Your task to perform on an android device: turn off notifications in google photos Image 0: 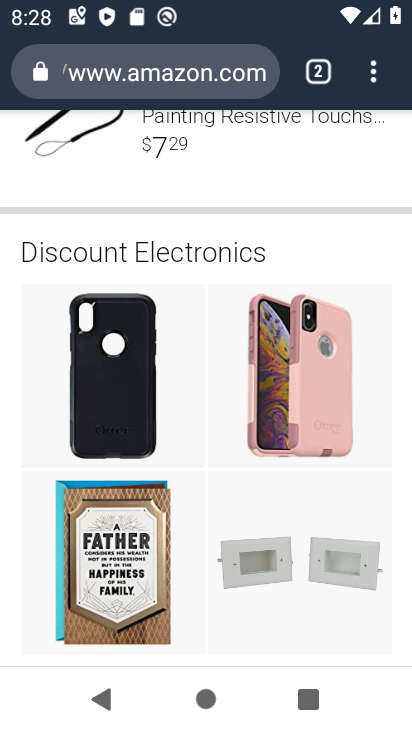
Step 0: press home button
Your task to perform on an android device: turn off notifications in google photos Image 1: 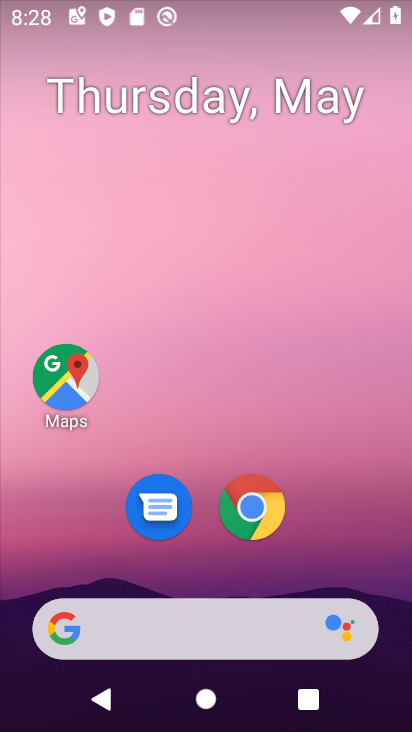
Step 1: drag from (361, 557) to (350, 107)
Your task to perform on an android device: turn off notifications in google photos Image 2: 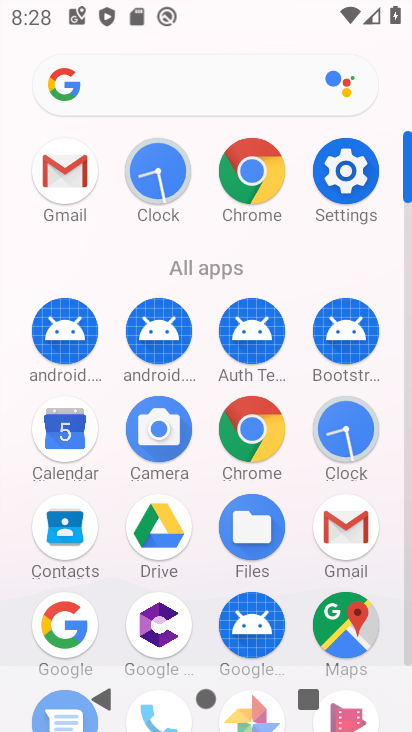
Step 2: drag from (213, 569) to (204, 175)
Your task to perform on an android device: turn off notifications in google photos Image 3: 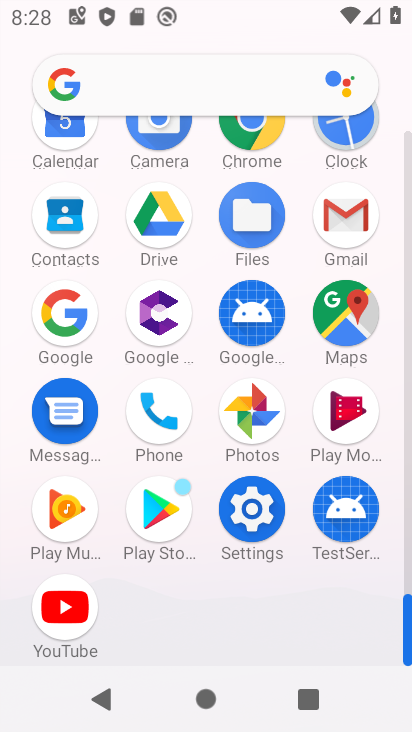
Step 3: click (265, 403)
Your task to perform on an android device: turn off notifications in google photos Image 4: 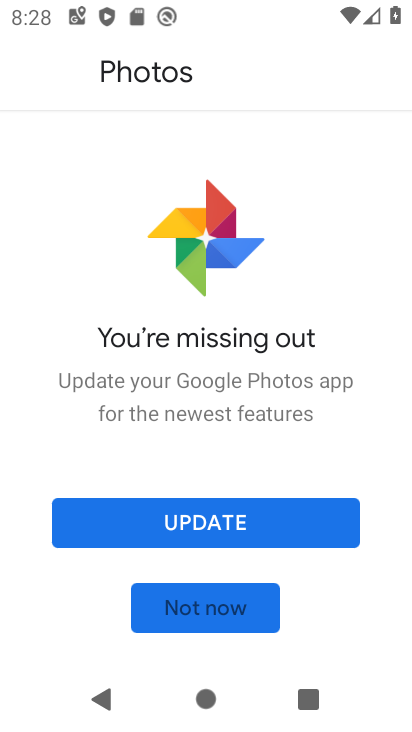
Step 4: click (247, 528)
Your task to perform on an android device: turn off notifications in google photos Image 5: 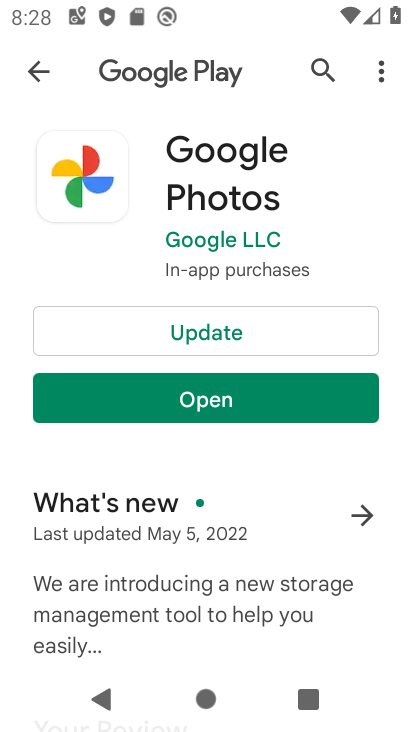
Step 5: click (223, 334)
Your task to perform on an android device: turn off notifications in google photos Image 6: 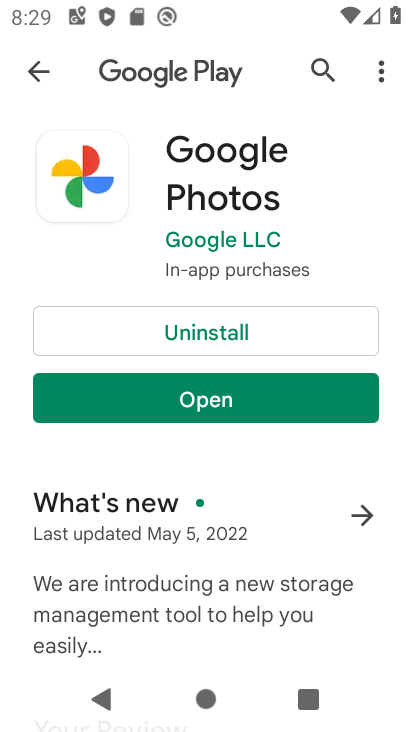
Step 6: click (198, 407)
Your task to perform on an android device: turn off notifications in google photos Image 7: 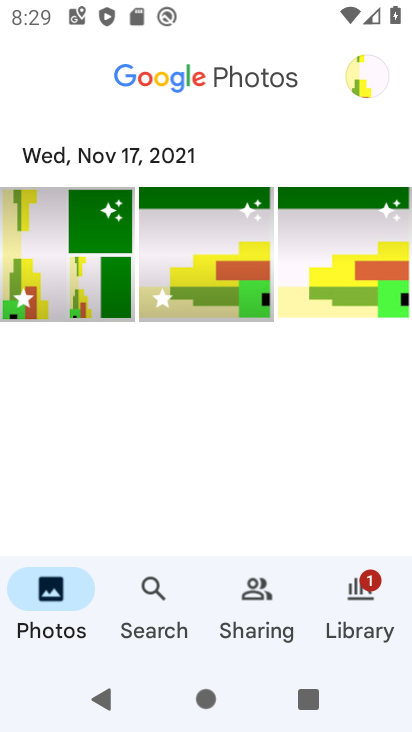
Step 7: click (357, 81)
Your task to perform on an android device: turn off notifications in google photos Image 8: 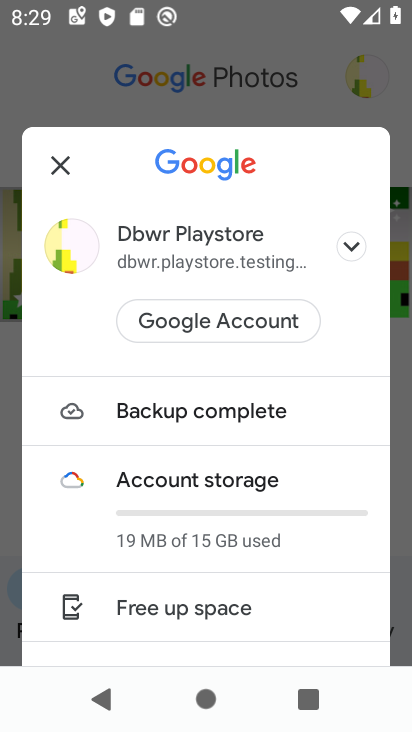
Step 8: drag from (289, 576) to (271, 209)
Your task to perform on an android device: turn off notifications in google photos Image 9: 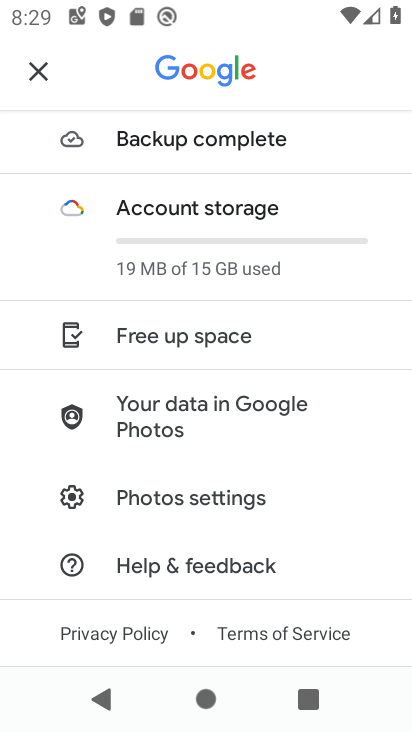
Step 9: click (178, 498)
Your task to perform on an android device: turn off notifications in google photos Image 10: 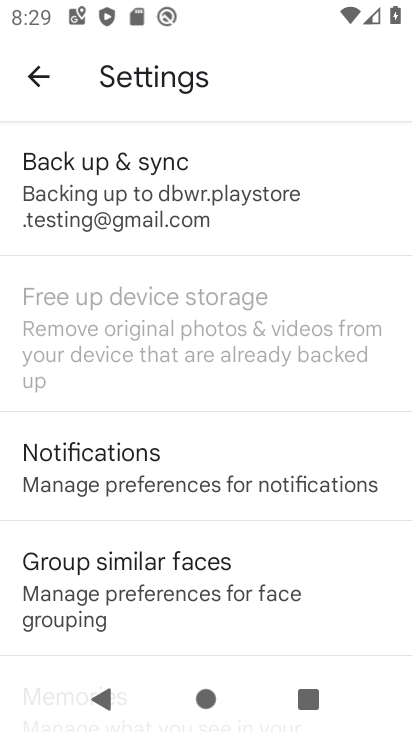
Step 10: click (192, 476)
Your task to perform on an android device: turn off notifications in google photos Image 11: 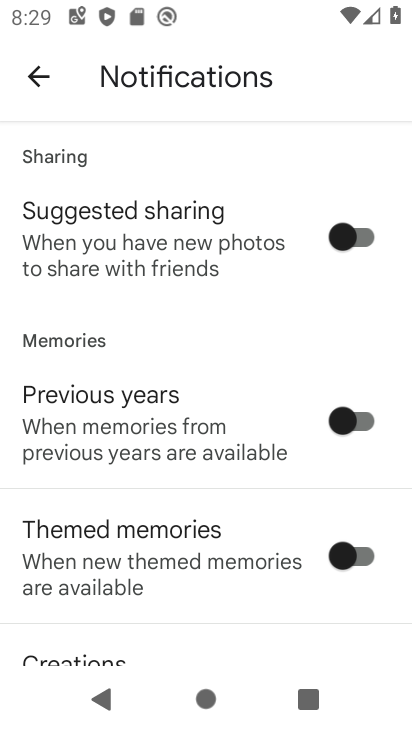
Step 11: drag from (200, 626) to (232, 224)
Your task to perform on an android device: turn off notifications in google photos Image 12: 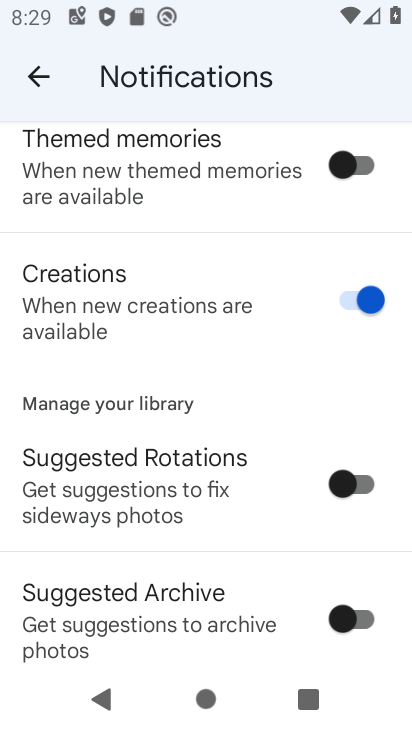
Step 12: drag from (225, 568) to (250, 116)
Your task to perform on an android device: turn off notifications in google photos Image 13: 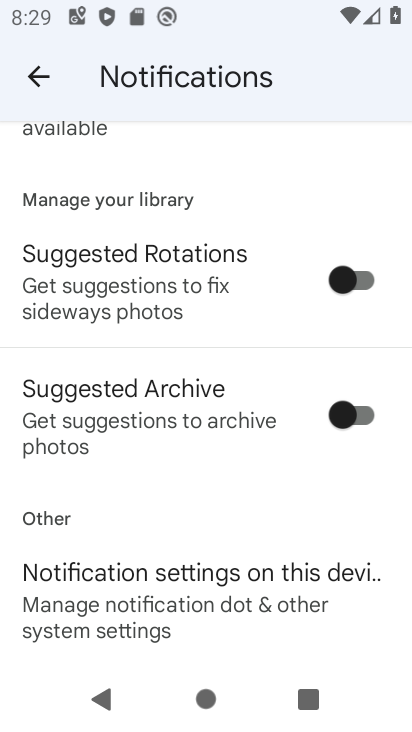
Step 13: click (165, 591)
Your task to perform on an android device: turn off notifications in google photos Image 14: 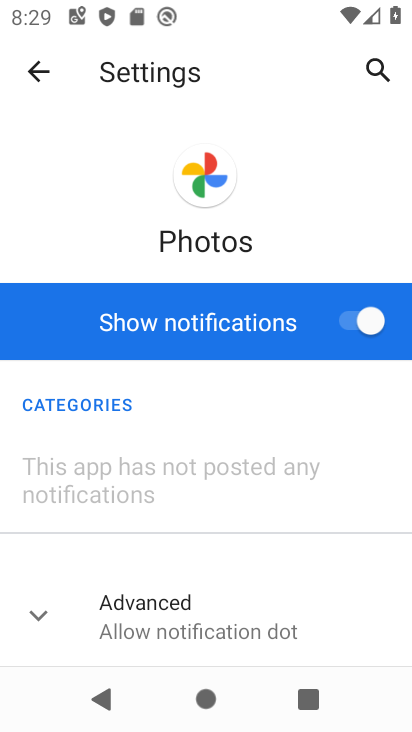
Step 14: click (346, 320)
Your task to perform on an android device: turn off notifications in google photos Image 15: 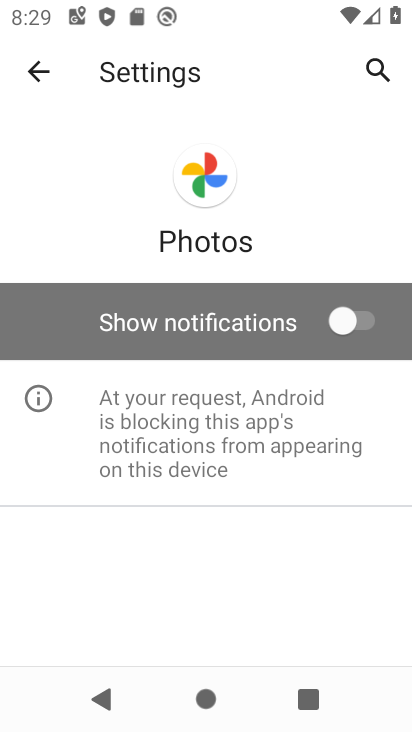
Step 15: task complete